Your task to perform on an android device: turn on data saver in the chrome app Image 0: 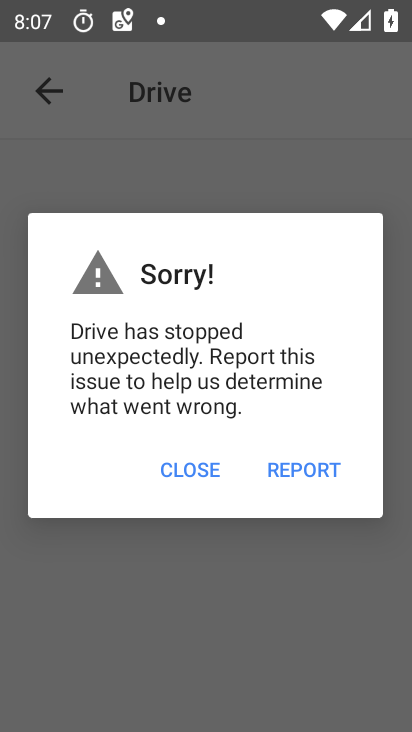
Step 0: press home button
Your task to perform on an android device: turn on data saver in the chrome app Image 1: 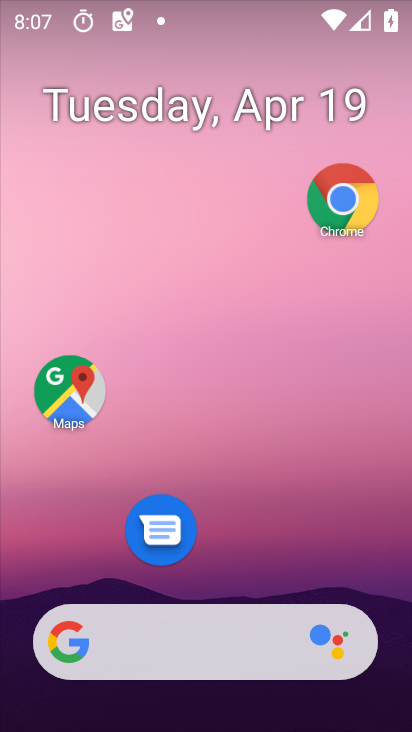
Step 1: drag from (232, 542) to (242, 73)
Your task to perform on an android device: turn on data saver in the chrome app Image 2: 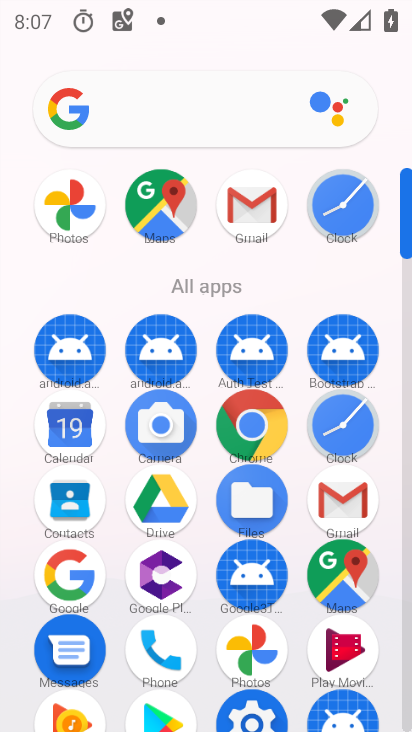
Step 2: click (251, 416)
Your task to perform on an android device: turn on data saver in the chrome app Image 3: 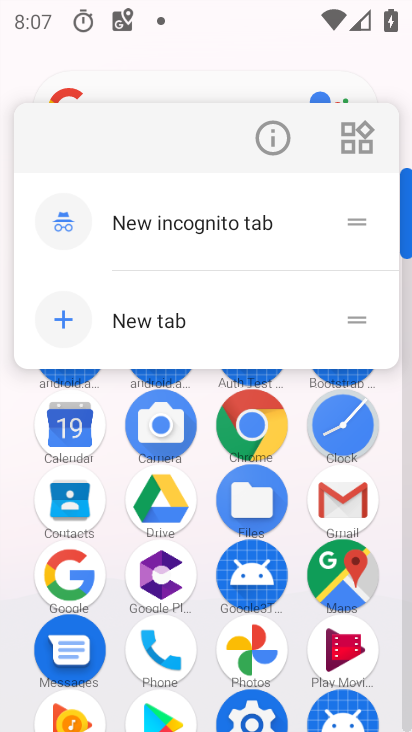
Step 3: click (266, 127)
Your task to perform on an android device: turn on data saver in the chrome app Image 4: 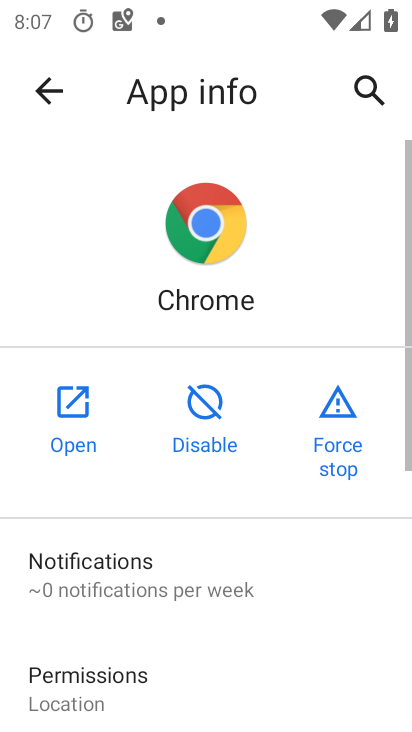
Step 4: click (74, 409)
Your task to perform on an android device: turn on data saver in the chrome app Image 5: 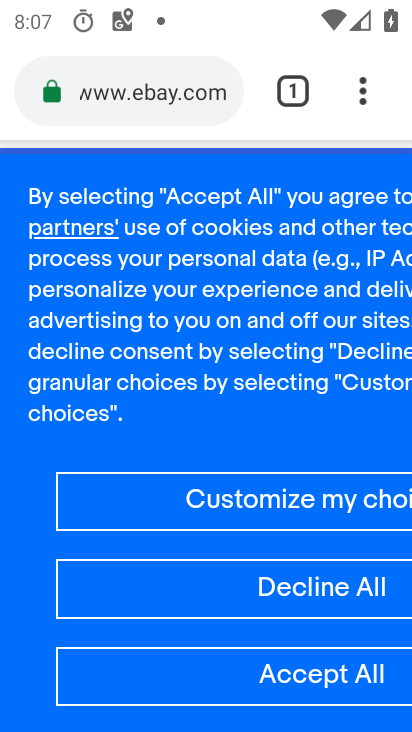
Step 5: click (361, 93)
Your task to perform on an android device: turn on data saver in the chrome app Image 6: 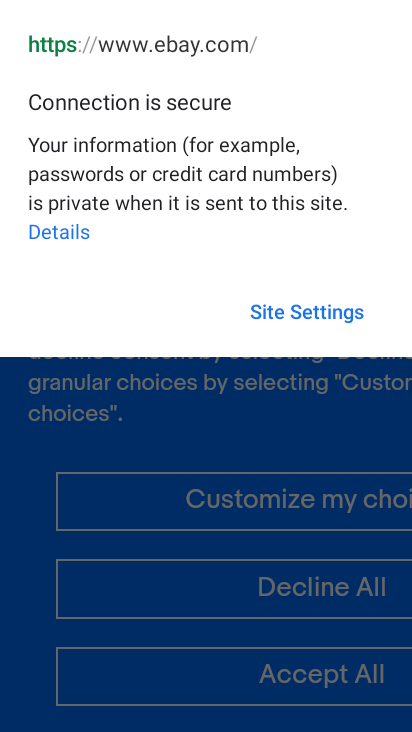
Step 6: click (299, 307)
Your task to perform on an android device: turn on data saver in the chrome app Image 7: 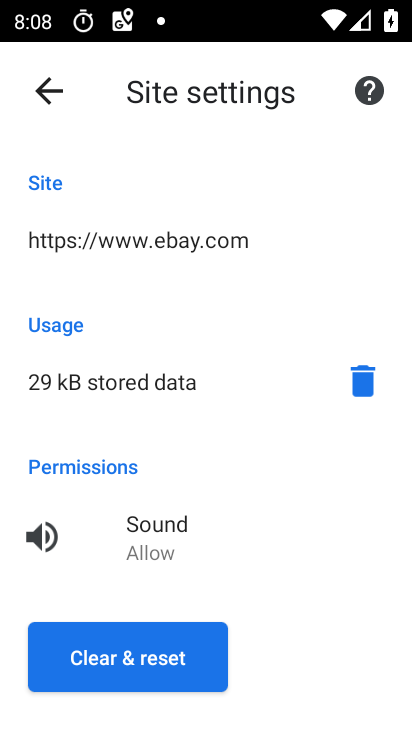
Step 7: click (46, 87)
Your task to perform on an android device: turn on data saver in the chrome app Image 8: 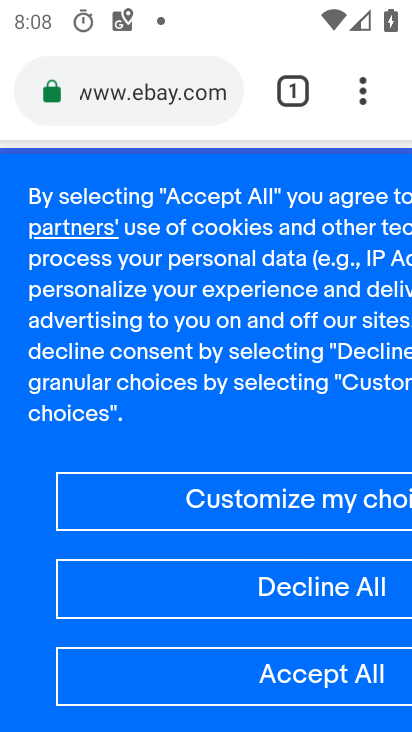
Step 8: drag from (363, 90) to (161, 544)
Your task to perform on an android device: turn on data saver in the chrome app Image 9: 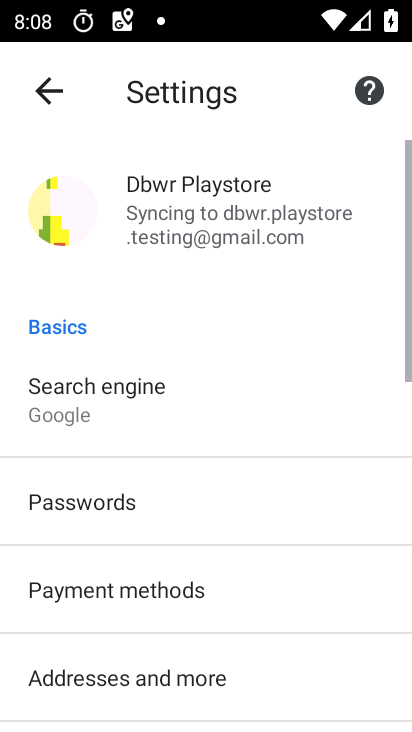
Step 9: drag from (189, 564) to (293, 4)
Your task to perform on an android device: turn on data saver in the chrome app Image 10: 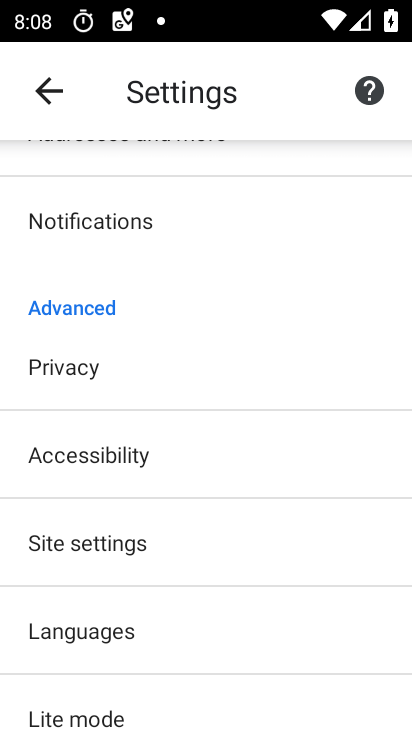
Step 10: click (100, 717)
Your task to perform on an android device: turn on data saver in the chrome app Image 11: 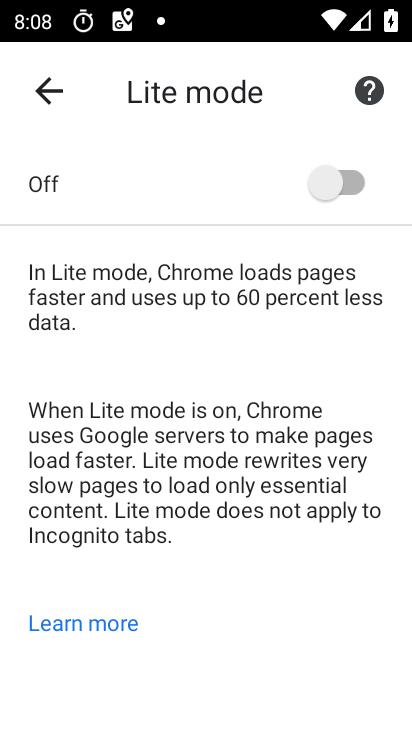
Step 11: click (317, 181)
Your task to perform on an android device: turn on data saver in the chrome app Image 12: 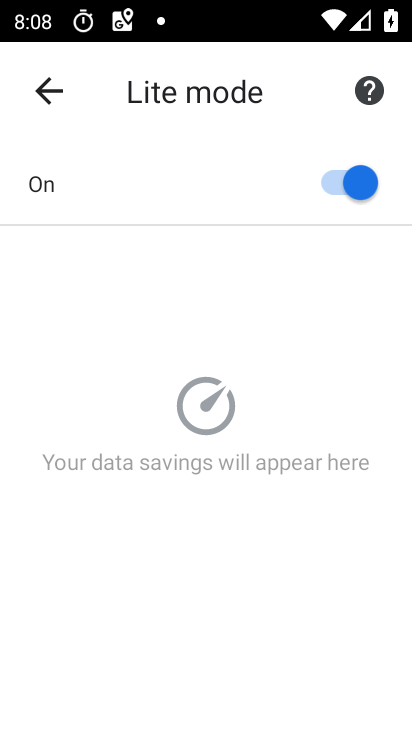
Step 12: task complete